Your task to perform on an android device: Open Google Image 0: 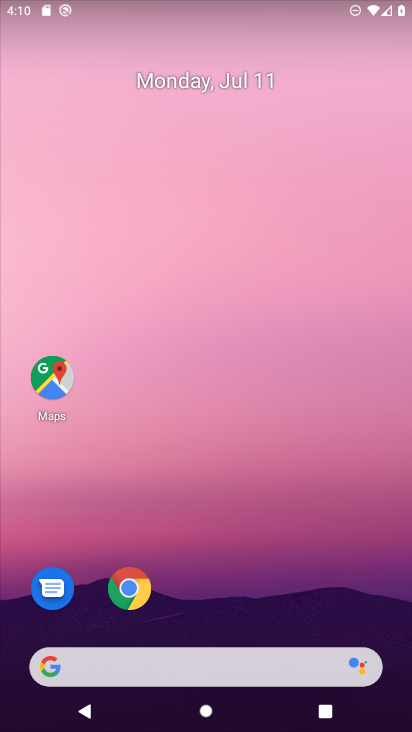
Step 0: press home button
Your task to perform on an android device: Open Google Image 1: 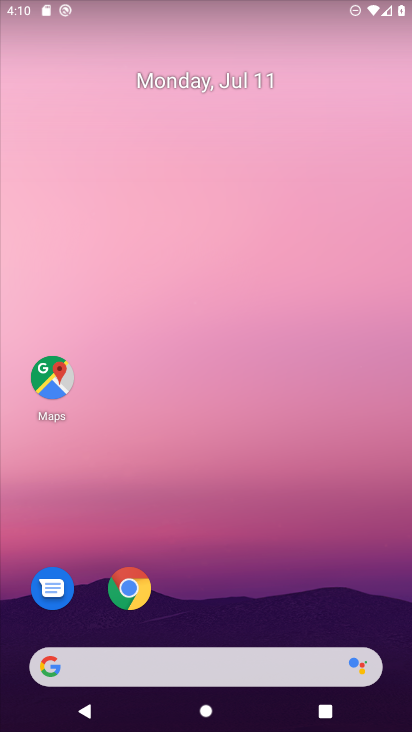
Step 1: drag from (219, 593) to (202, 9)
Your task to perform on an android device: Open Google Image 2: 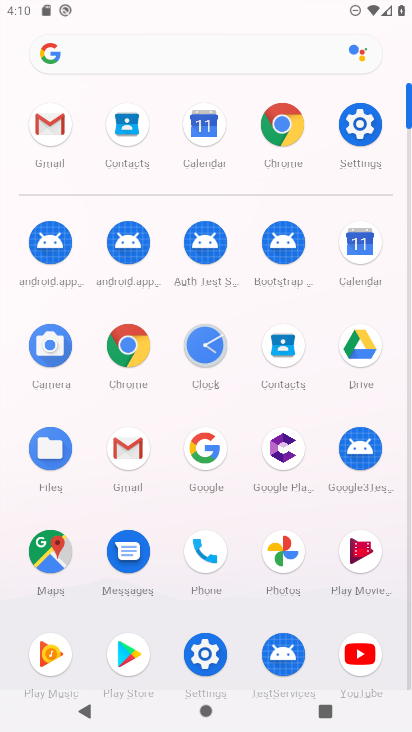
Step 2: click (208, 447)
Your task to perform on an android device: Open Google Image 3: 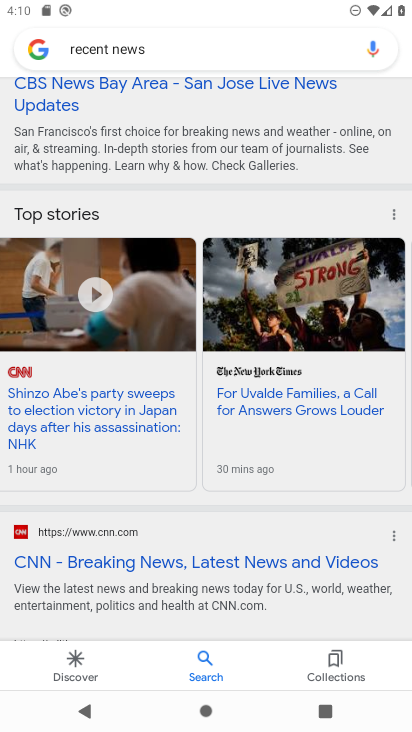
Step 3: click (31, 54)
Your task to perform on an android device: Open Google Image 4: 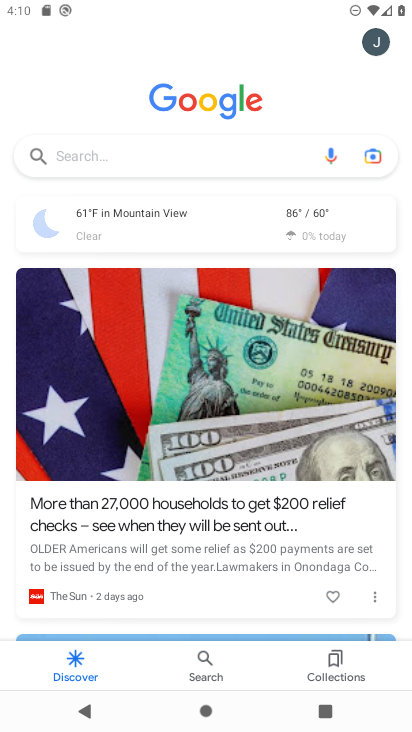
Step 4: task complete